Your task to perform on an android device: delete location history Image 0: 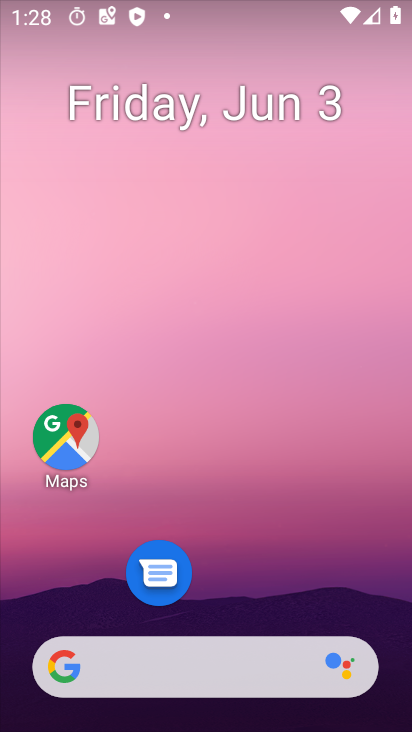
Step 0: drag from (170, 698) to (165, 0)
Your task to perform on an android device: delete location history Image 1: 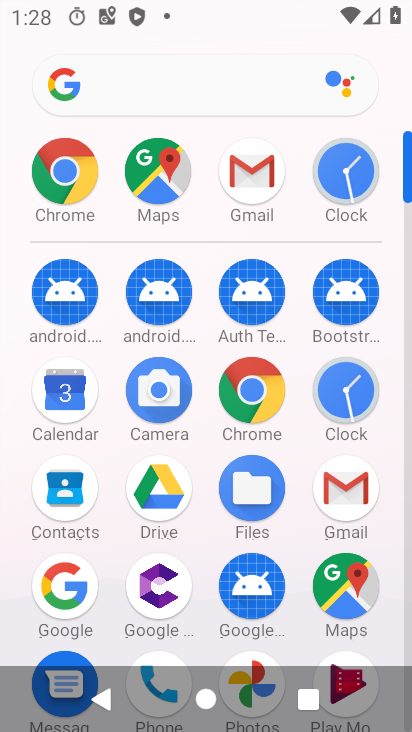
Step 1: click (386, 575)
Your task to perform on an android device: delete location history Image 2: 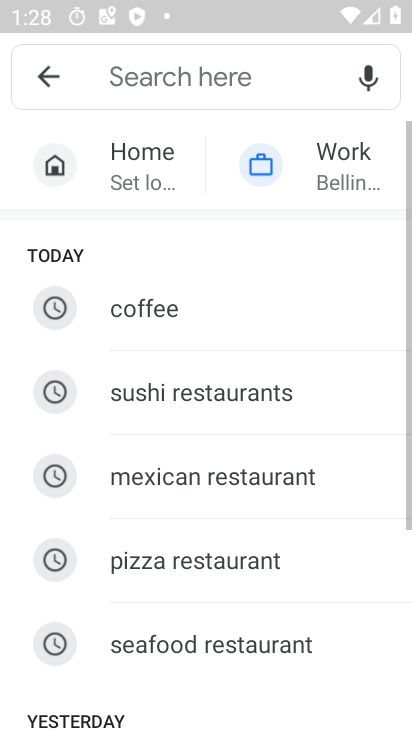
Step 2: press back button
Your task to perform on an android device: delete location history Image 3: 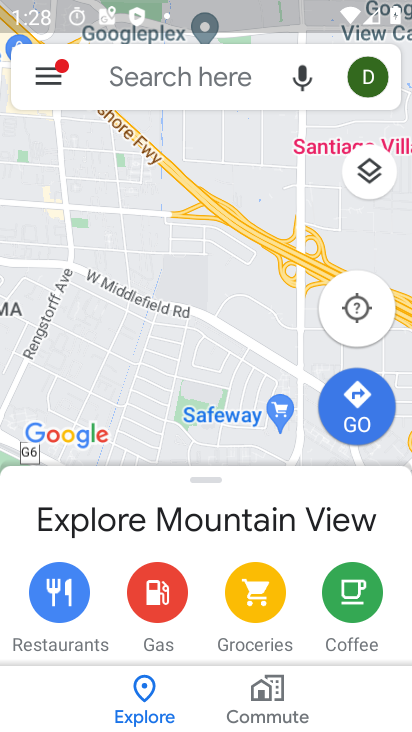
Step 3: click (56, 73)
Your task to perform on an android device: delete location history Image 4: 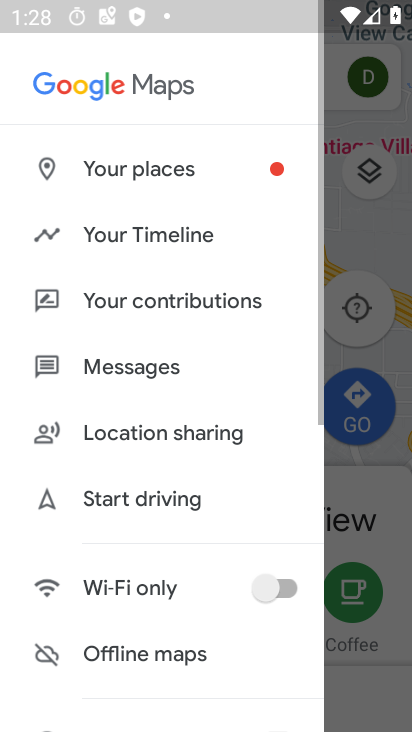
Step 4: click (81, 158)
Your task to perform on an android device: delete location history Image 5: 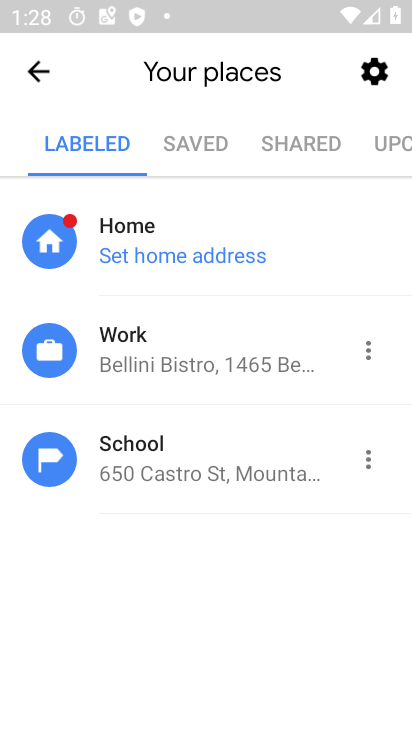
Step 5: click (185, 136)
Your task to perform on an android device: delete location history Image 6: 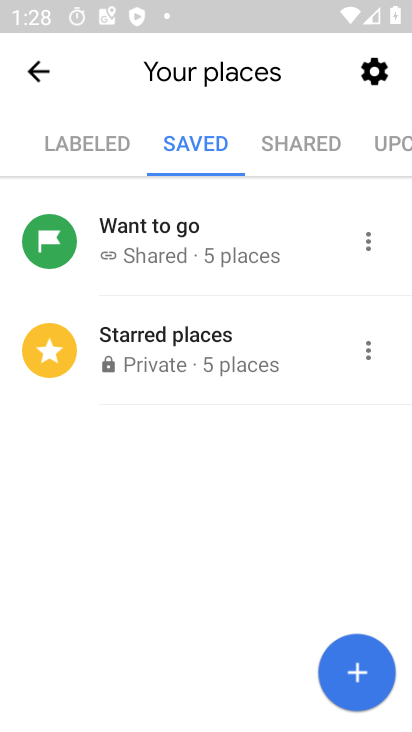
Step 6: press back button
Your task to perform on an android device: delete location history Image 7: 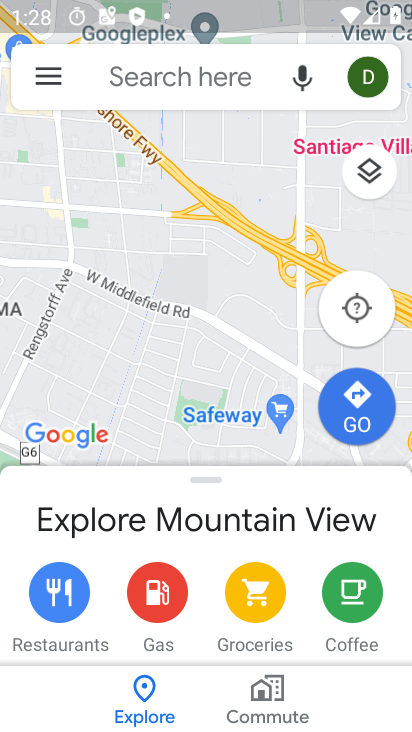
Step 7: click (50, 67)
Your task to perform on an android device: delete location history Image 8: 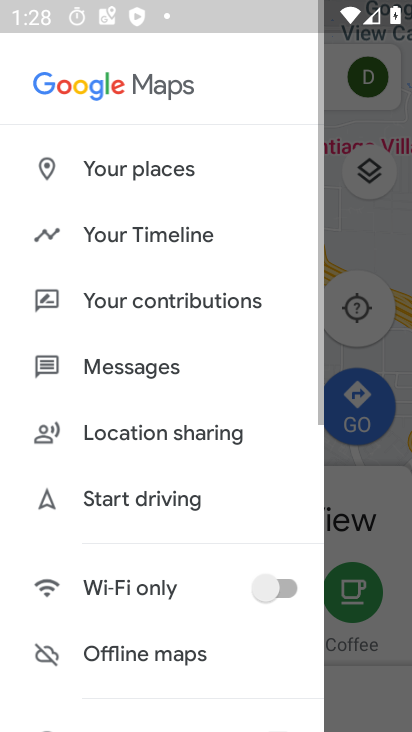
Step 8: click (73, 224)
Your task to perform on an android device: delete location history Image 9: 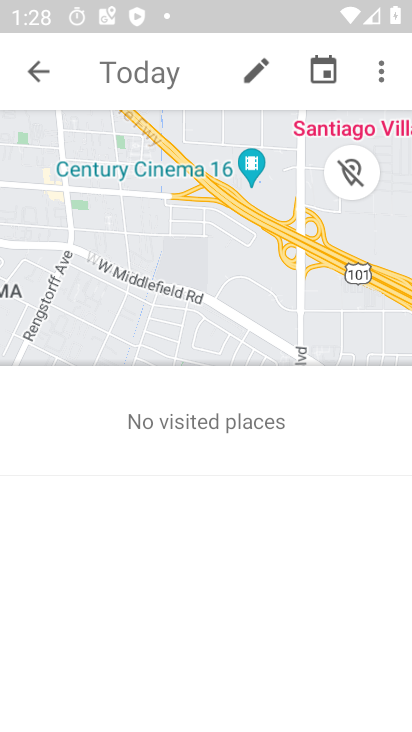
Step 9: click (372, 83)
Your task to perform on an android device: delete location history Image 10: 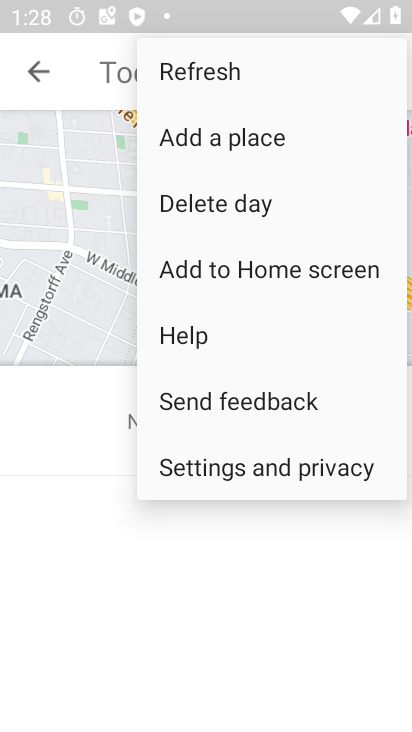
Step 10: click (311, 459)
Your task to perform on an android device: delete location history Image 11: 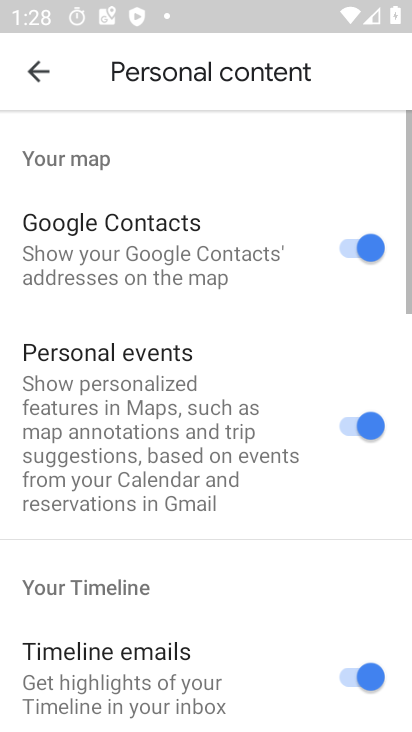
Step 11: drag from (240, 626) to (252, 97)
Your task to perform on an android device: delete location history Image 12: 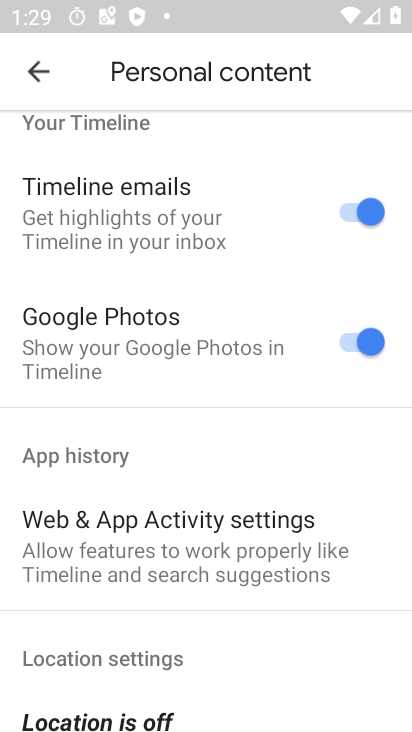
Step 12: drag from (220, 686) to (242, 86)
Your task to perform on an android device: delete location history Image 13: 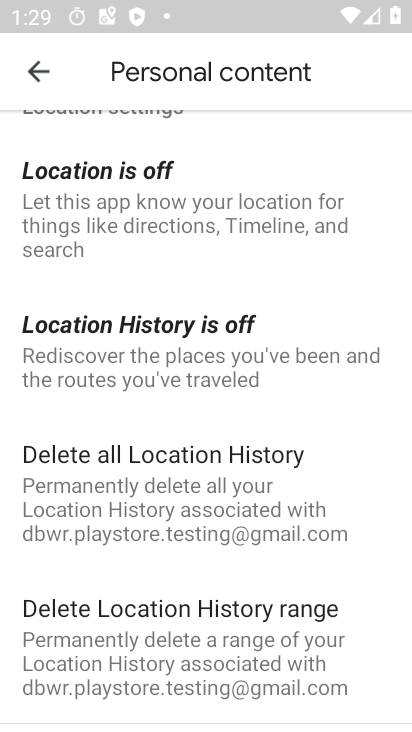
Step 13: click (212, 537)
Your task to perform on an android device: delete location history Image 14: 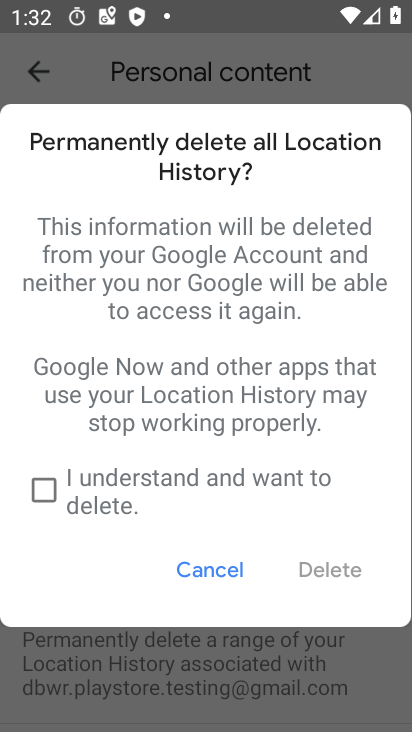
Step 14: click (35, 495)
Your task to perform on an android device: delete location history Image 15: 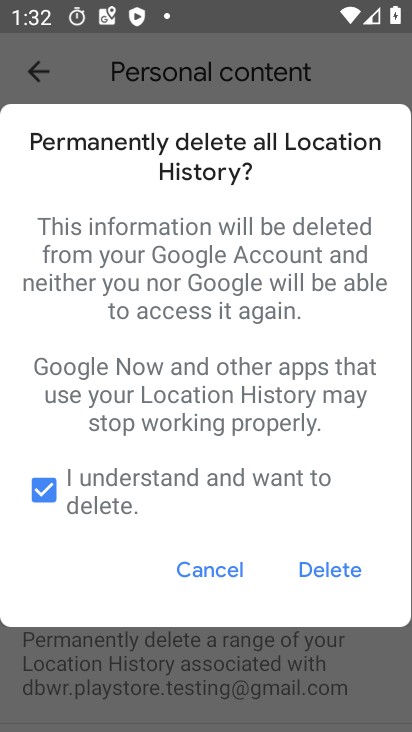
Step 15: click (325, 567)
Your task to perform on an android device: delete location history Image 16: 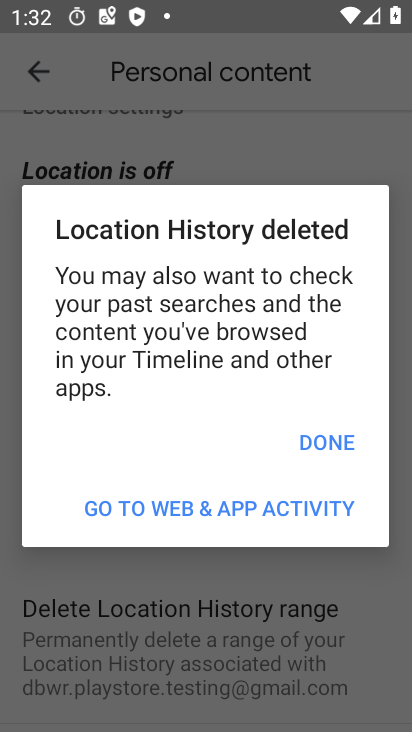
Step 16: task complete